Your task to perform on an android device: Search for 'The Girl on the Train' on Goodreads. Image 0: 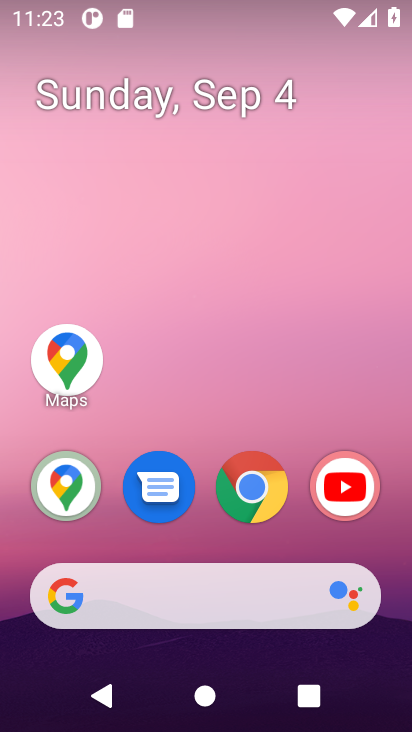
Step 0: click (274, 481)
Your task to perform on an android device: Search for 'The Girl on the Train' on Goodreads. Image 1: 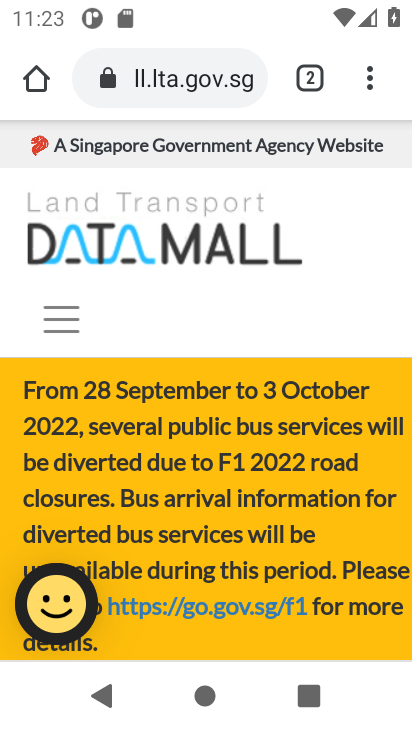
Step 1: task complete